Your task to perform on an android device: Open Reddit.com Image 0: 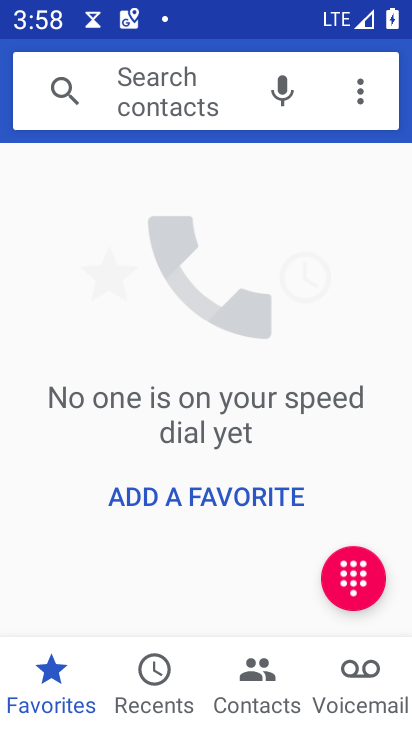
Step 0: press home button
Your task to perform on an android device: Open Reddit.com Image 1: 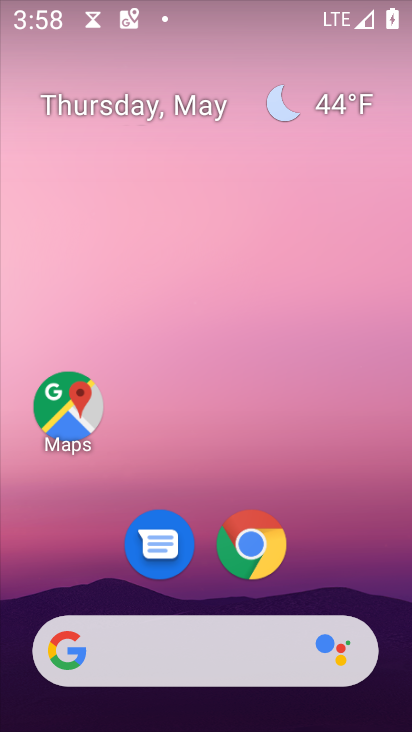
Step 1: click (240, 563)
Your task to perform on an android device: Open Reddit.com Image 2: 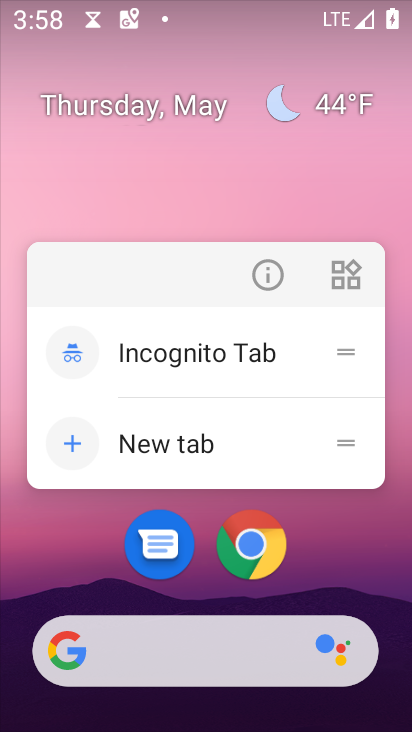
Step 2: click (240, 565)
Your task to perform on an android device: Open Reddit.com Image 3: 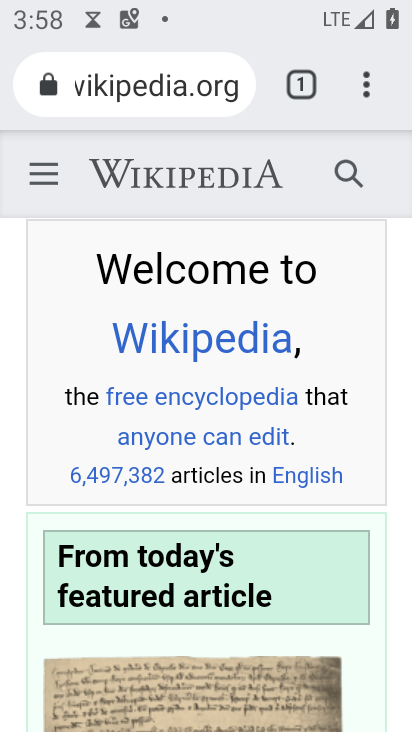
Step 3: click (143, 76)
Your task to perform on an android device: Open Reddit.com Image 4: 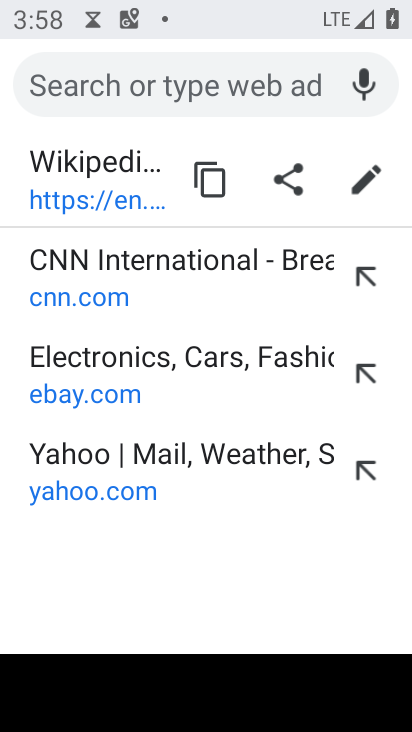
Step 4: type "reddit.com"
Your task to perform on an android device: Open Reddit.com Image 5: 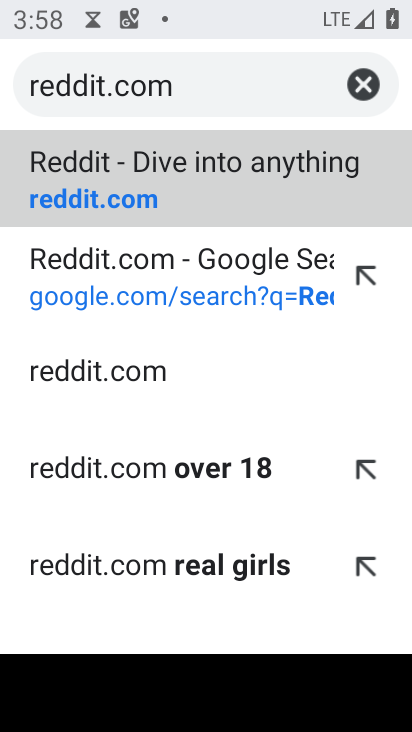
Step 5: click (114, 199)
Your task to perform on an android device: Open Reddit.com Image 6: 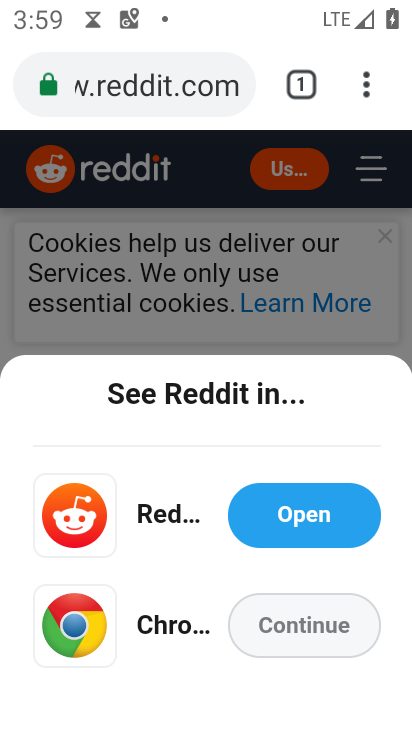
Step 6: task complete